Your task to perform on an android device: open app "Google Sheets" Image 0: 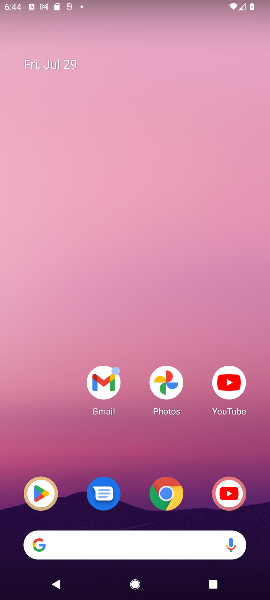
Step 0: drag from (160, 592) to (156, 90)
Your task to perform on an android device: open app "Google Sheets" Image 1: 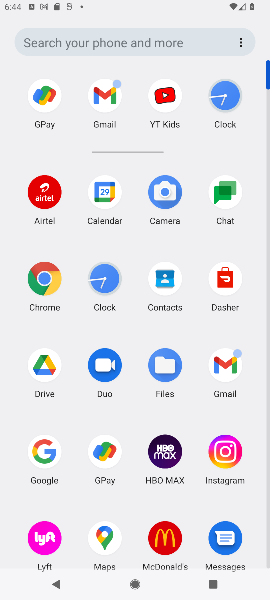
Step 1: drag from (195, 518) to (192, 222)
Your task to perform on an android device: open app "Google Sheets" Image 2: 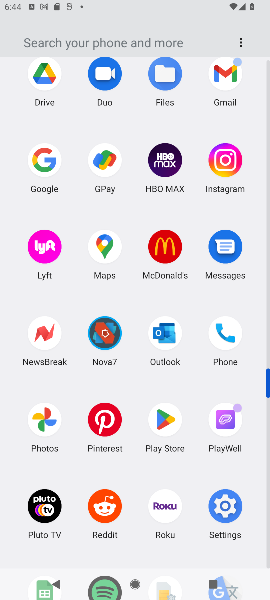
Step 2: click (167, 417)
Your task to perform on an android device: open app "Google Sheets" Image 3: 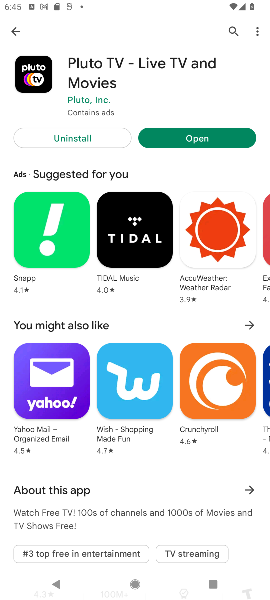
Step 3: click (232, 25)
Your task to perform on an android device: open app "Google Sheets" Image 4: 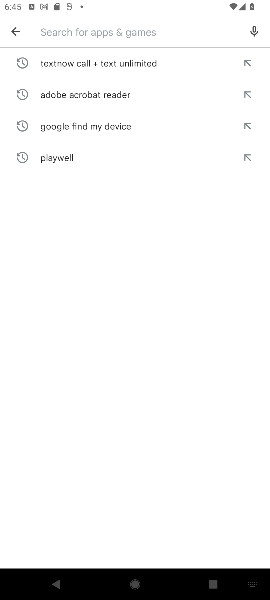
Step 4: type "Google Sheets"
Your task to perform on an android device: open app "Google Sheets" Image 5: 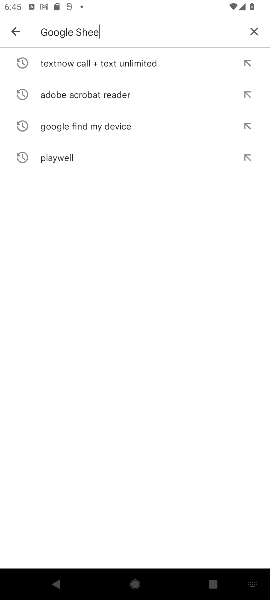
Step 5: type ""
Your task to perform on an android device: open app "Google Sheets" Image 6: 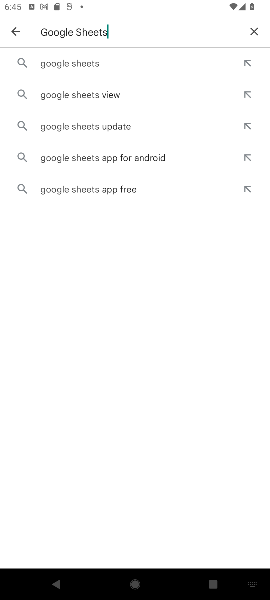
Step 6: click (75, 63)
Your task to perform on an android device: open app "Google Sheets" Image 7: 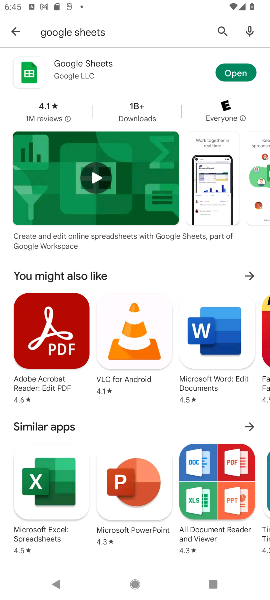
Step 7: click (233, 71)
Your task to perform on an android device: open app "Google Sheets" Image 8: 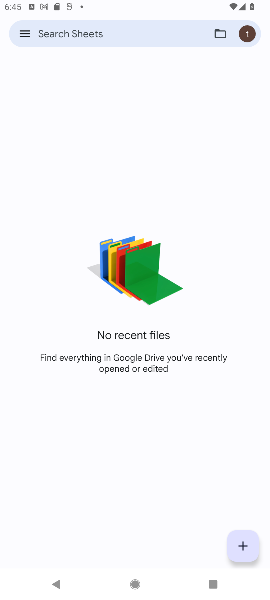
Step 8: task complete